Your task to perform on an android device: Open the Play Movies app and select the watchlist tab. Image 0: 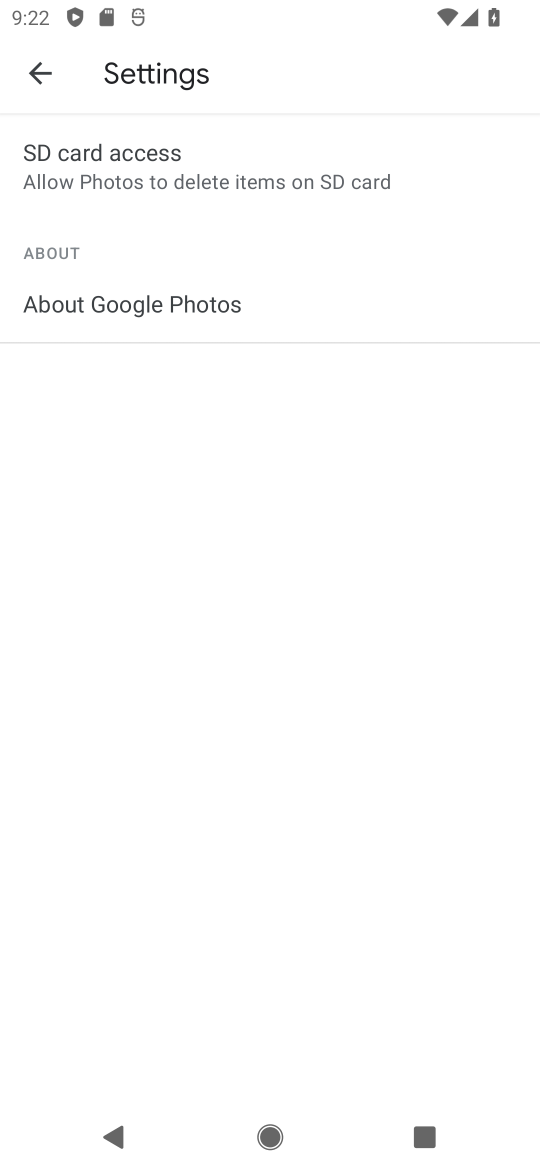
Step 0: press home button
Your task to perform on an android device: Open the Play Movies app and select the watchlist tab. Image 1: 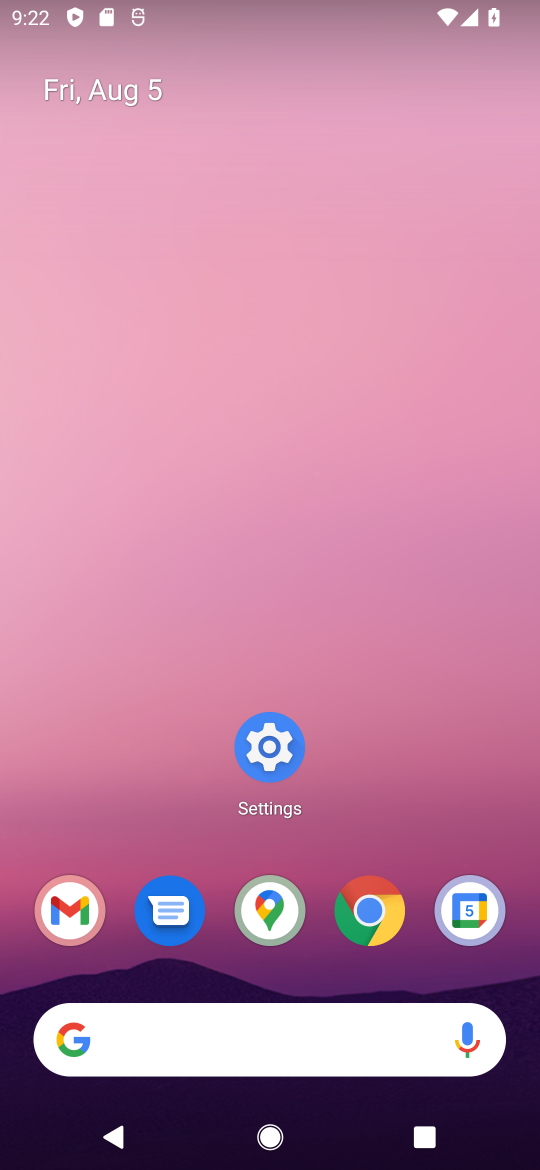
Step 1: task complete